Your task to perform on an android device: What's the weather going to be tomorrow? Image 0: 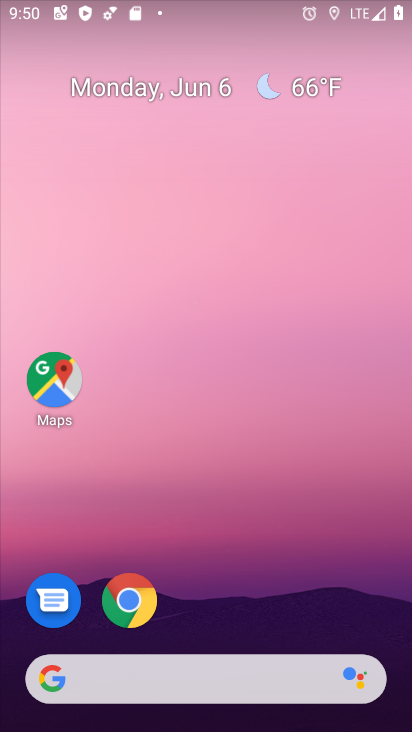
Step 0: click (198, 689)
Your task to perform on an android device: What's the weather going to be tomorrow? Image 1: 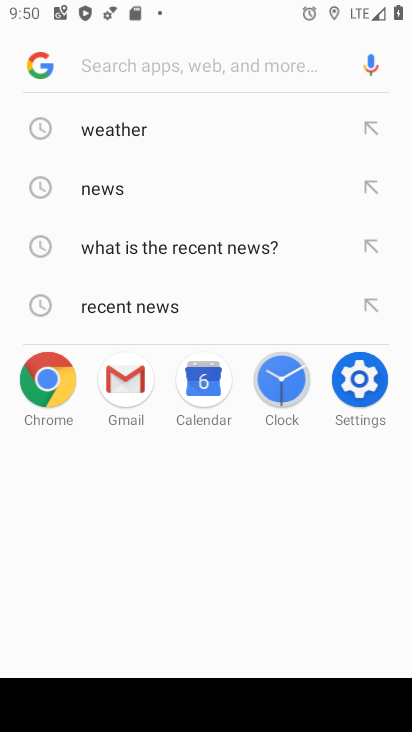
Step 1: click (166, 122)
Your task to perform on an android device: What's the weather going to be tomorrow? Image 2: 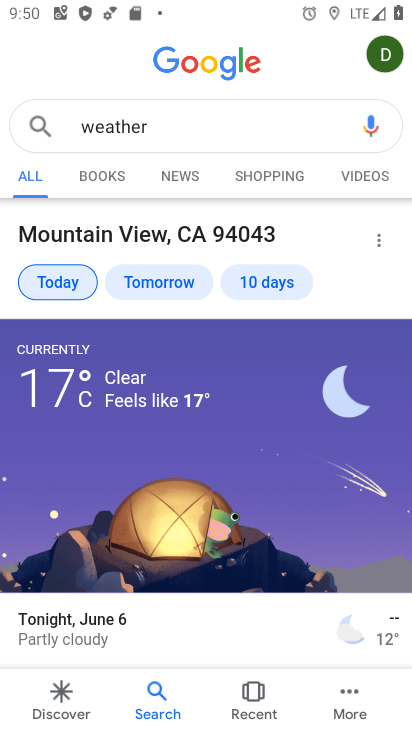
Step 2: click (167, 286)
Your task to perform on an android device: What's the weather going to be tomorrow? Image 3: 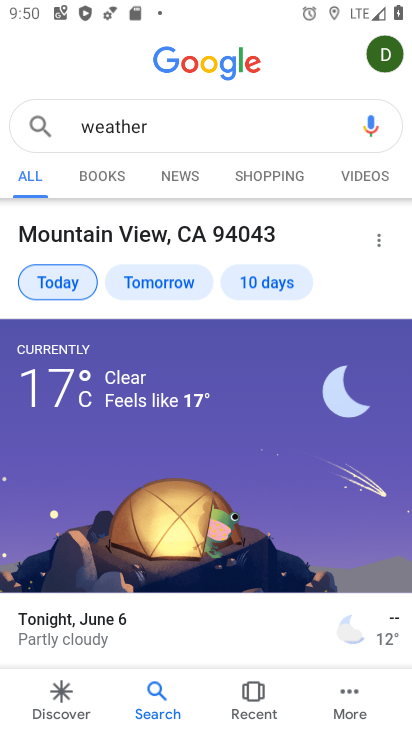
Step 3: click (119, 274)
Your task to perform on an android device: What's the weather going to be tomorrow? Image 4: 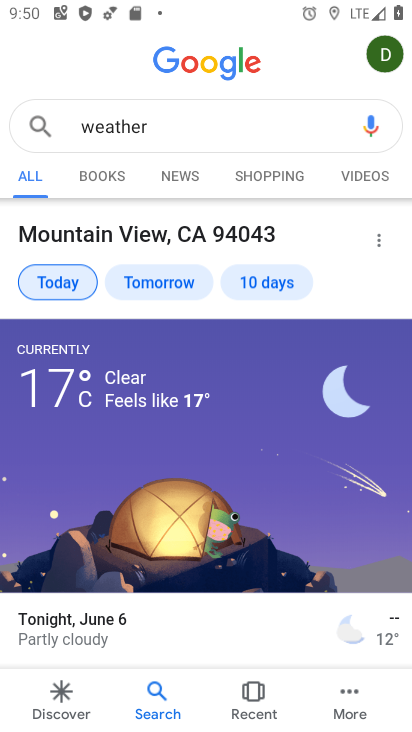
Step 4: task complete